Your task to perform on an android device: Go to CNN.com Image 0: 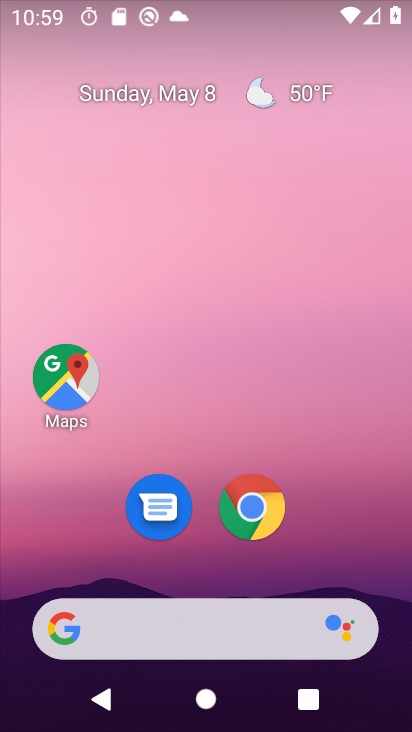
Step 0: click (253, 503)
Your task to perform on an android device: Go to CNN.com Image 1: 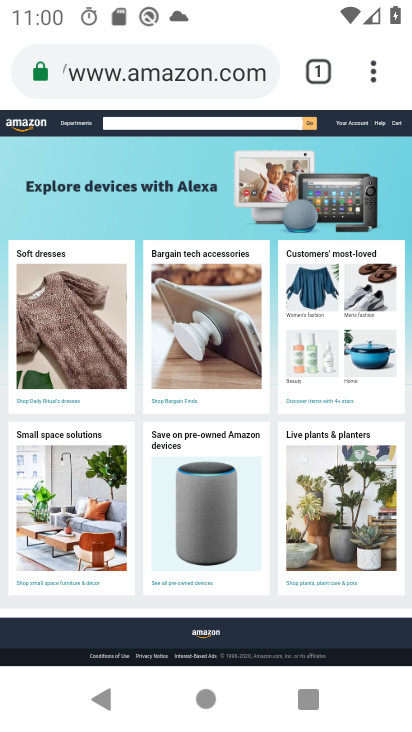
Step 1: click (374, 79)
Your task to perform on an android device: Go to CNN.com Image 2: 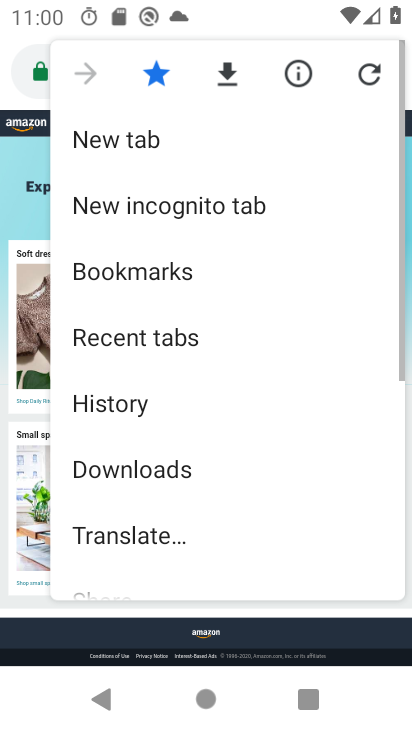
Step 2: click (142, 136)
Your task to perform on an android device: Go to CNN.com Image 3: 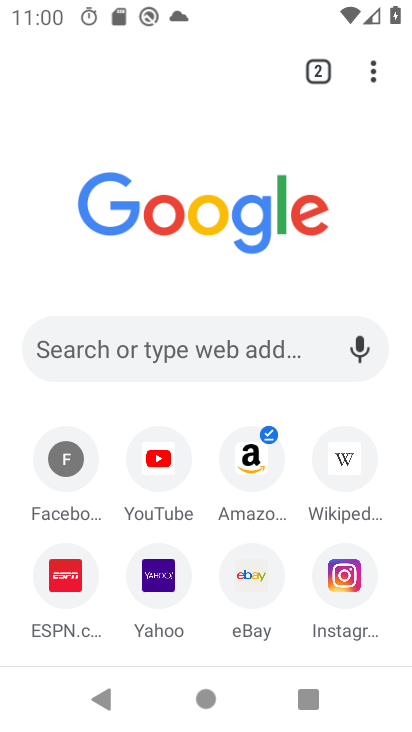
Step 3: click (177, 354)
Your task to perform on an android device: Go to CNN.com Image 4: 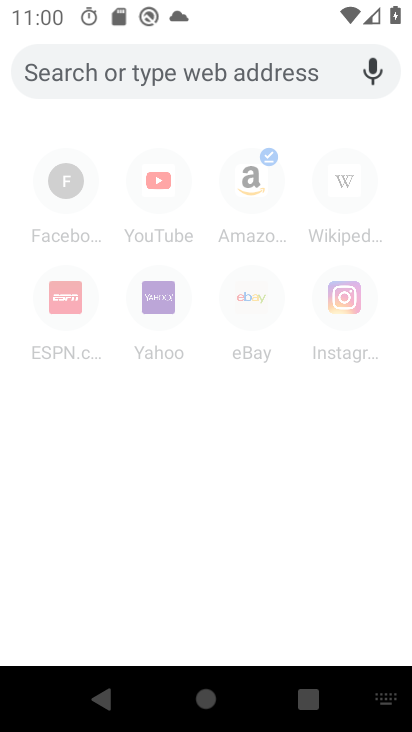
Step 4: type "CNN.com"
Your task to perform on an android device: Go to CNN.com Image 5: 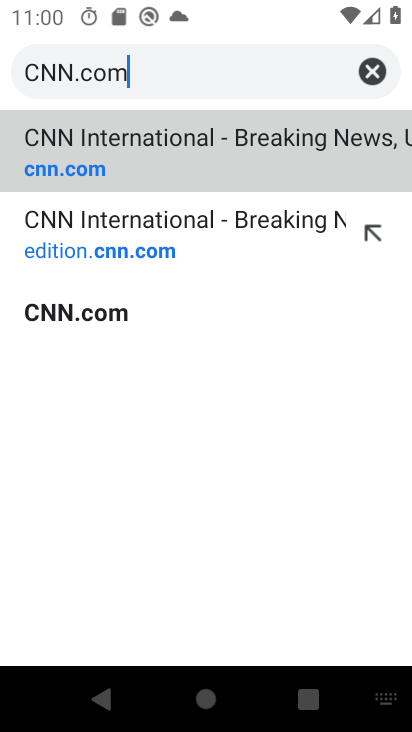
Step 5: click (87, 163)
Your task to perform on an android device: Go to CNN.com Image 6: 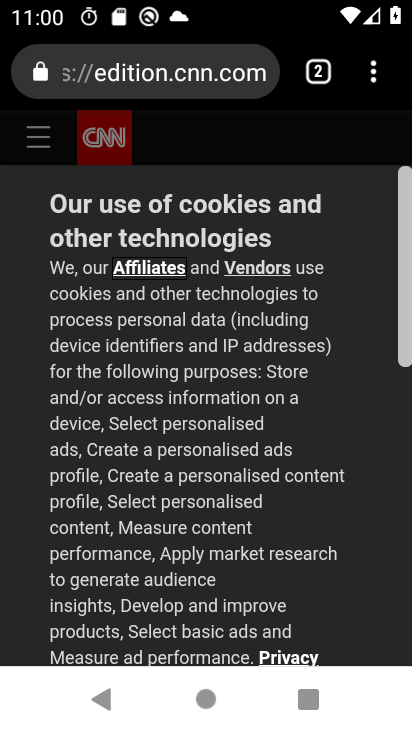
Step 6: task complete